Your task to perform on an android device: Go to battery settings Image 0: 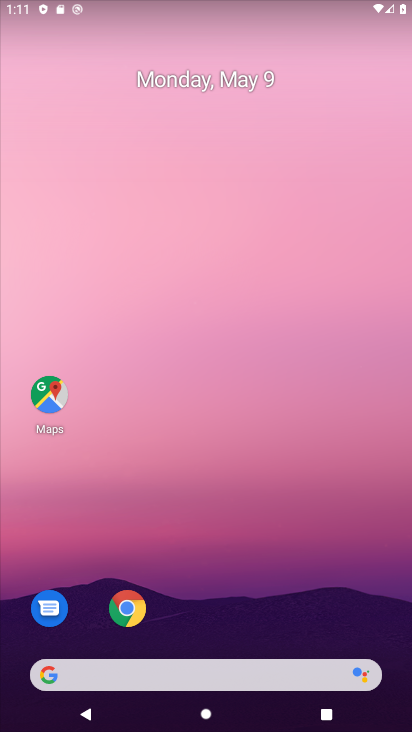
Step 0: drag from (300, 614) to (332, 23)
Your task to perform on an android device: Go to battery settings Image 1: 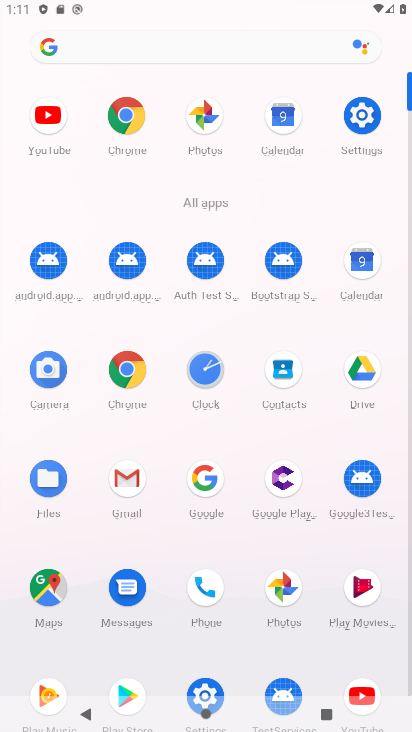
Step 1: click (350, 133)
Your task to perform on an android device: Go to battery settings Image 2: 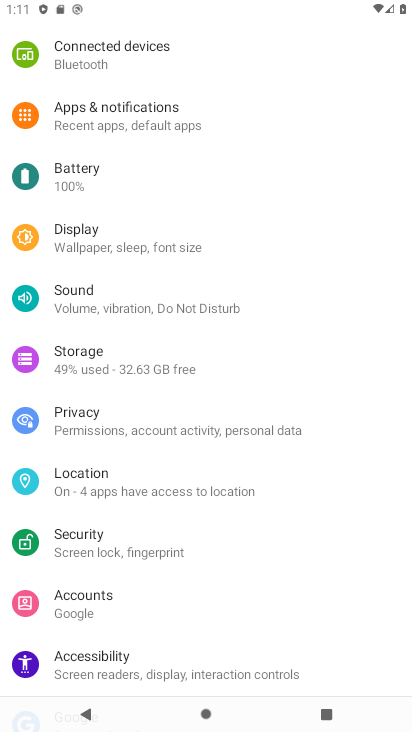
Step 2: click (80, 186)
Your task to perform on an android device: Go to battery settings Image 3: 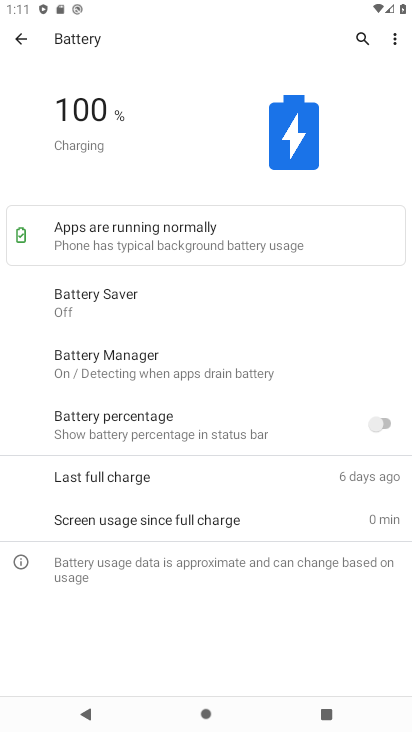
Step 3: task complete